Your task to perform on an android device: Find coffee shops on Maps Image 0: 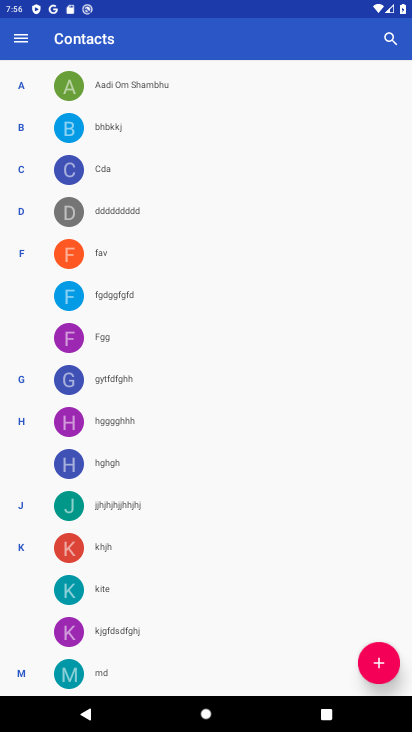
Step 0: press home button
Your task to perform on an android device: Find coffee shops on Maps Image 1: 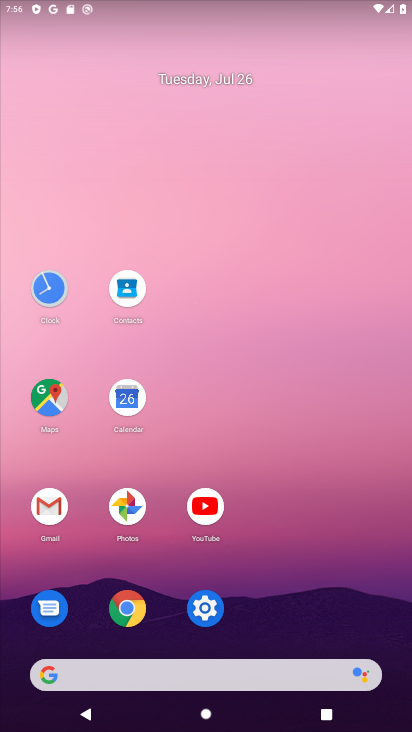
Step 1: click (44, 396)
Your task to perform on an android device: Find coffee shops on Maps Image 2: 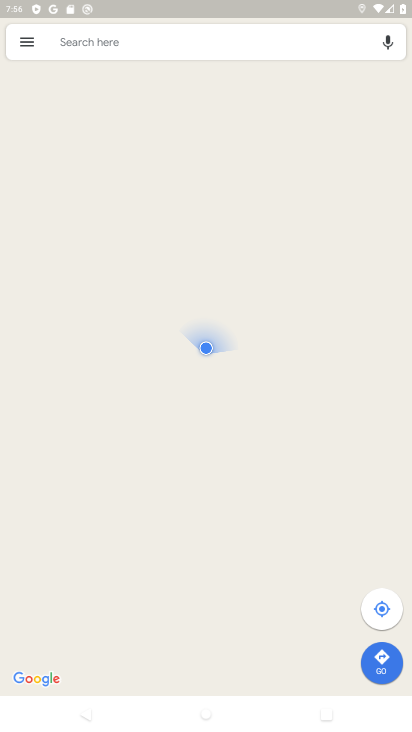
Step 2: click (131, 38)
Your task to perform on an android device: Find coffee shops on Maps Image 3: 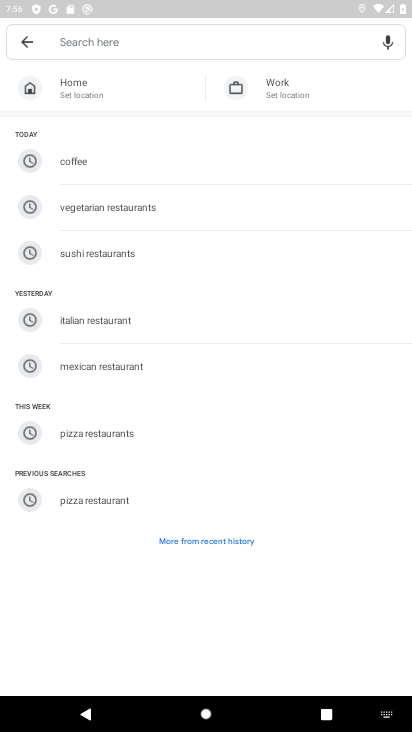
Step 3: click (64, 163)
Your task to perform on an android device: Find coffee shops on Maps Image 4: 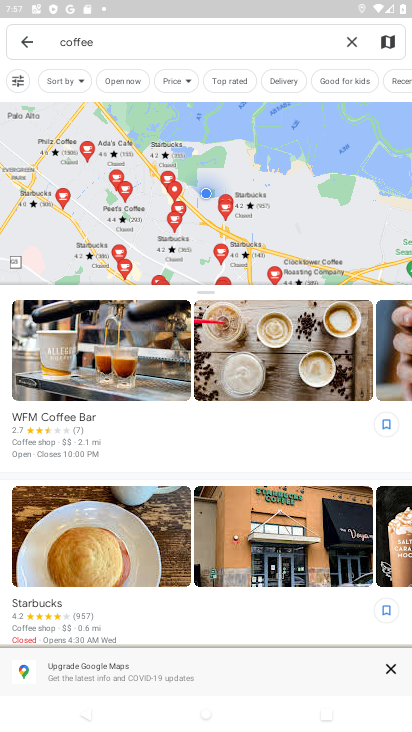
Step 4: task complete